Your task to perform on an android device: snooze an email in the gmail app Image 0: 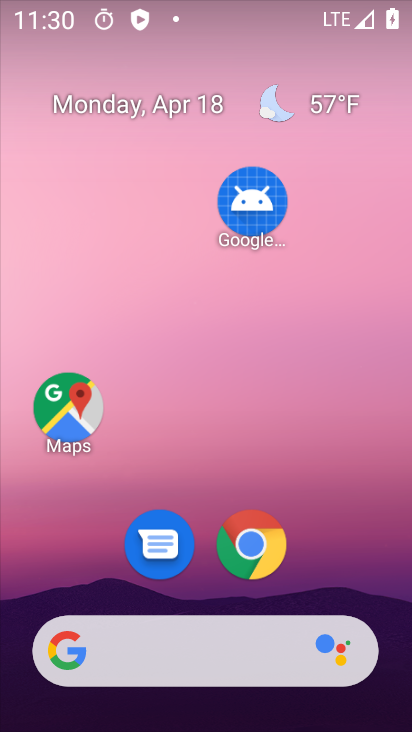
Step 0: drag from (378, 401) to (378, 167)
Your task to perform on an android device: snooze an email in the gmail app Image 1: 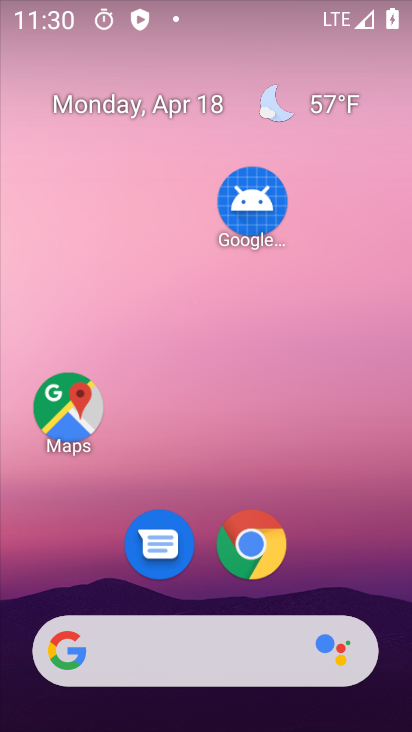
Step 1: drag from (324, 367) to (309, 201)
Your task to perform on an android device: snooze an email in the gmail app Image 2: 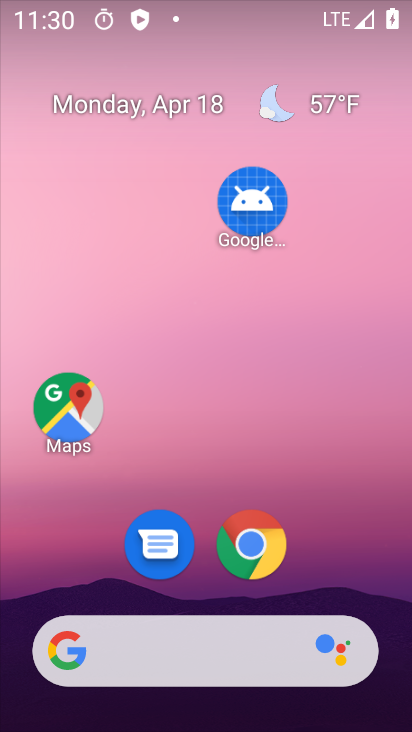
Step 2: drag from (312, 605) to (262, 134)
Your task to perform on an android device: snooze an email in the gmail app Image 3: 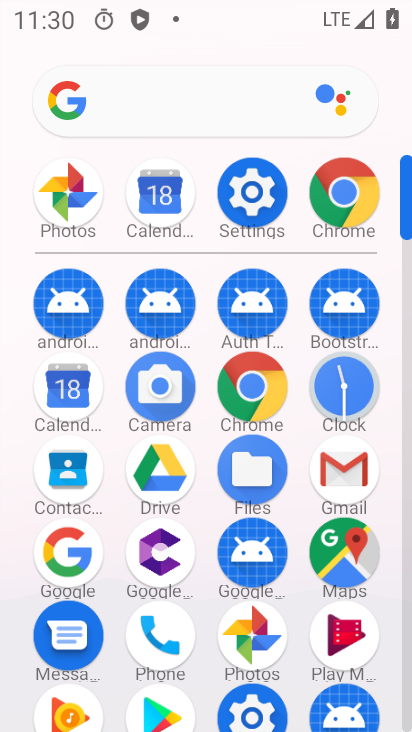
Step 3: click (335, 461)
Your task to perform on an android device: snooze an email in the gmail app Image 4: 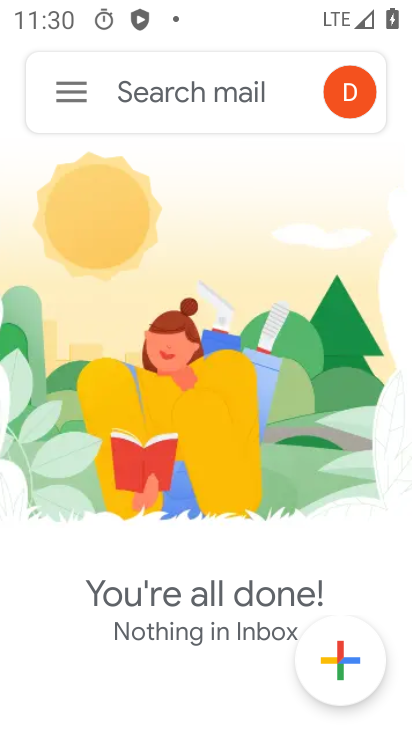
Step 4: click (56, 94)
Your task to perform on an android device: snooze an email in the gmail app Image 5: 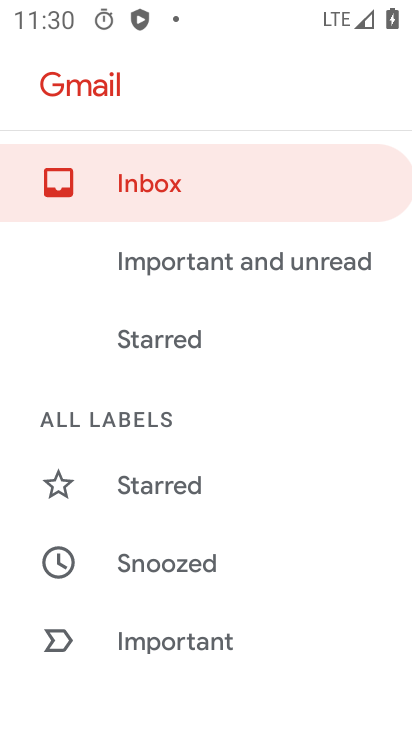
Step 5: click (206, 554)
Your task to perform on an android device: snooze an email in the gmail app Image 6: 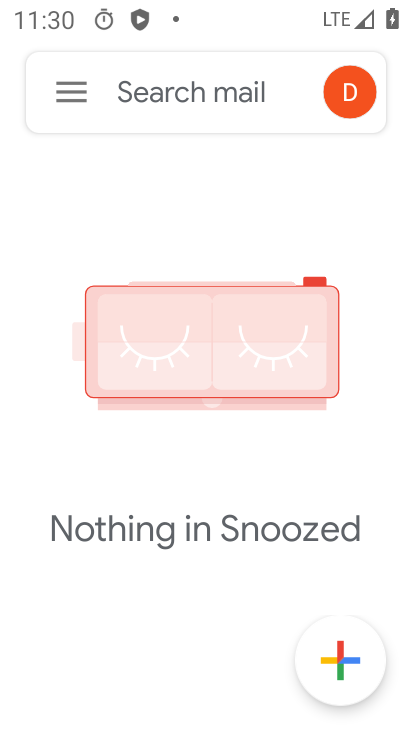
Step 6: task complete